Your task to perform on an android device: uninstall "Messages" Image 0: 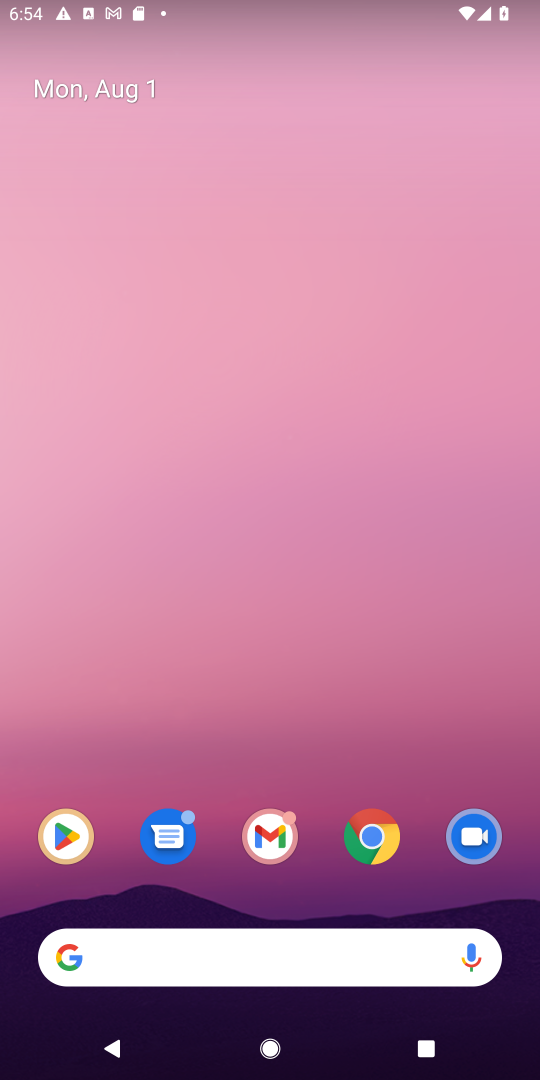
Step 0: press home button
Your task to perform on an android device: uninstall "Messages" Image 1: 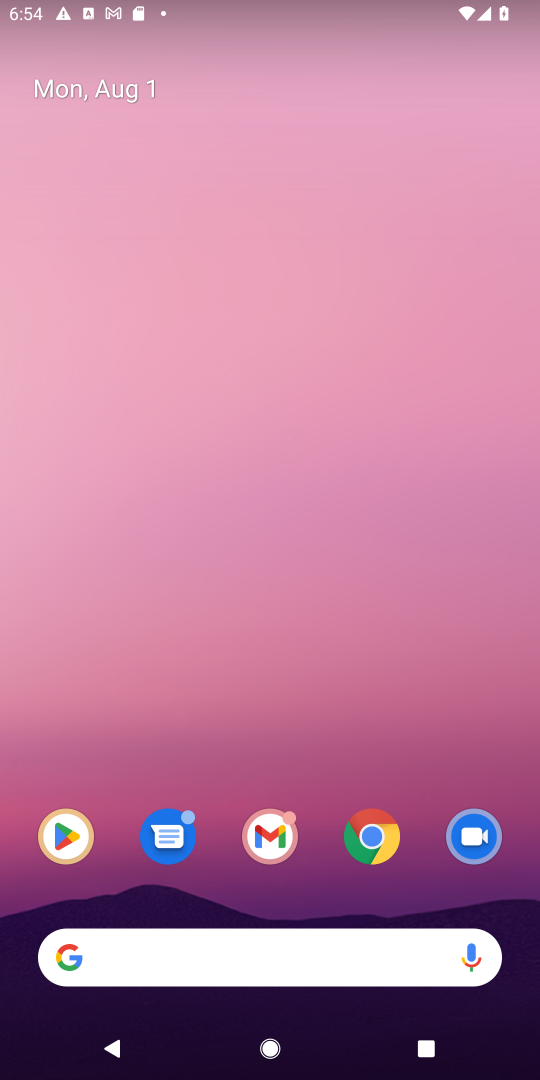
Step 1: click (62, 823)
Your task to perform on an android device: uninstall "Messages" Image 2: 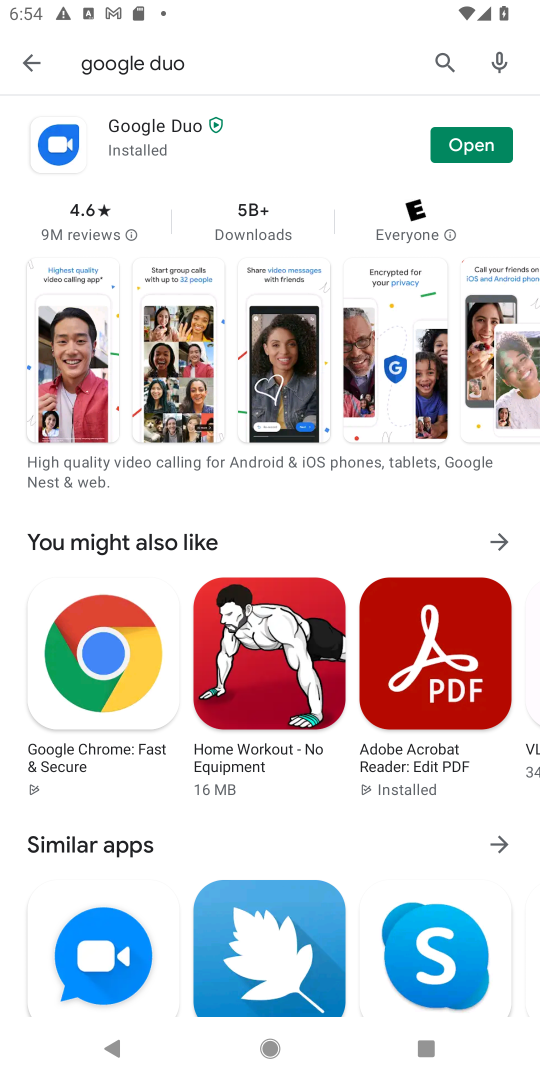
Step 2: click (446, 55)
Your task to perform on an android device: uninstall "Messages" Image 3: 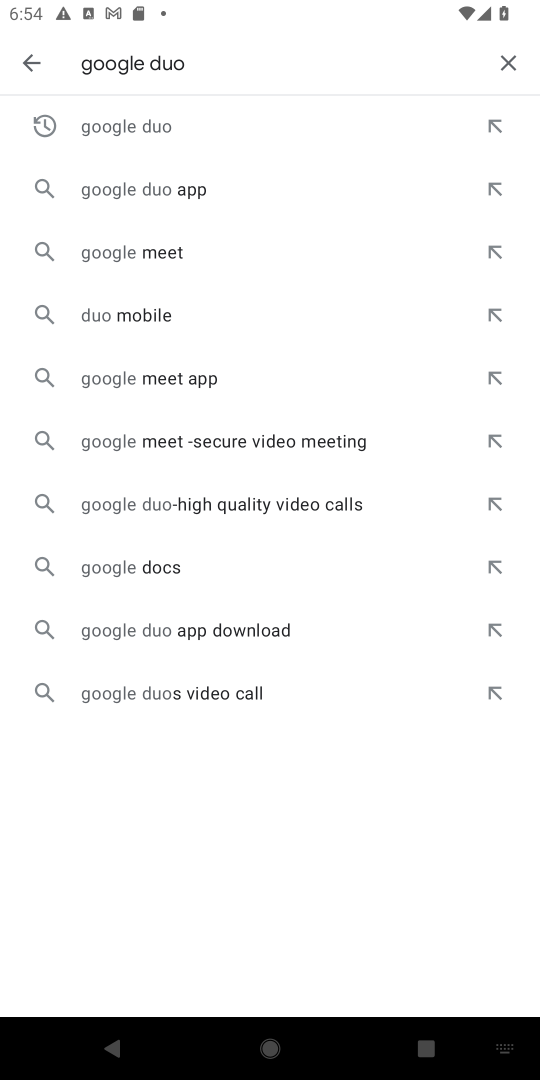
Step 3: click (504, 55)
Your task to perform on an android device: uninstall "Messages" Image 4: 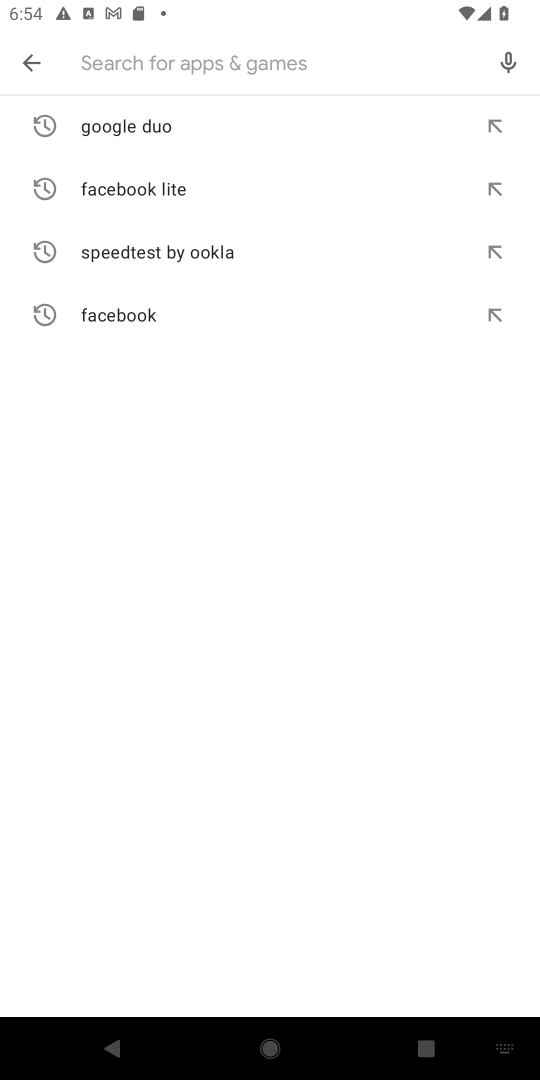
Step 4: type "Messages"
Your task to perform on an android device: uninstall "Messages" Image 5: 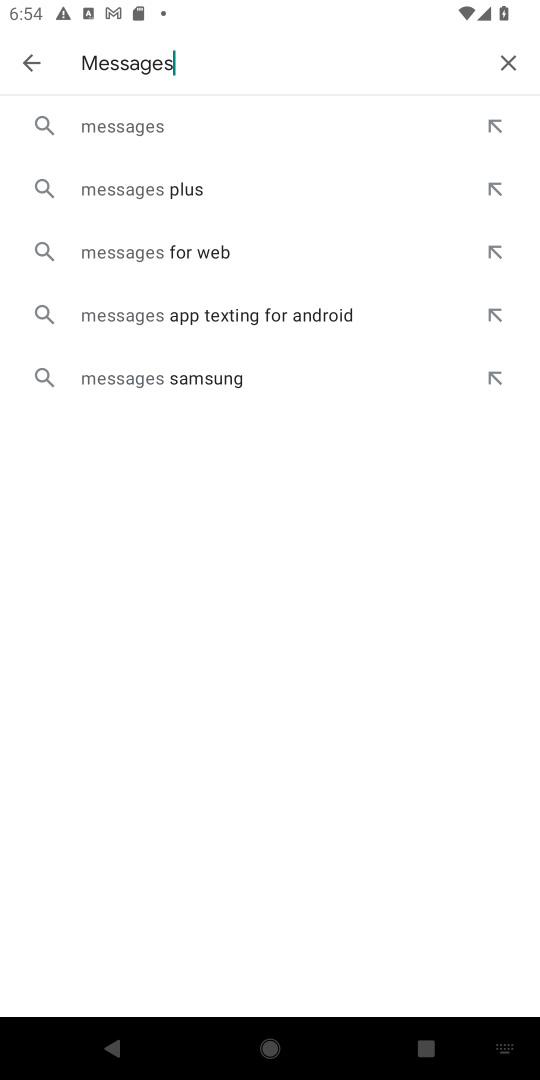
Step 5: click (155, 114)
Your task to perform on an android device: uninstall "Messages" Image 6: 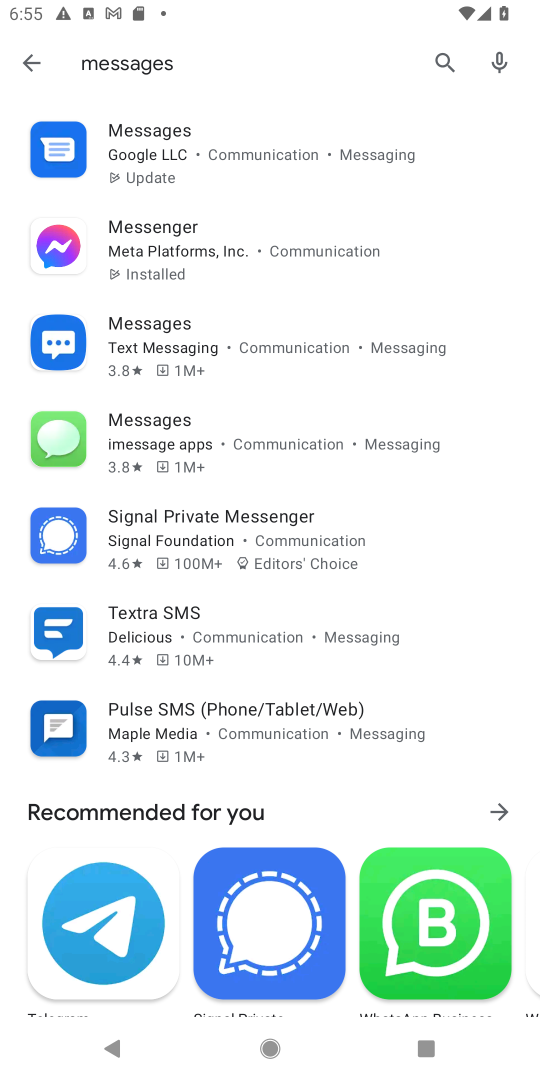
Step 6: click (216, 161)
Your task to perform on an android device: uninstall "Messages" Image 7: 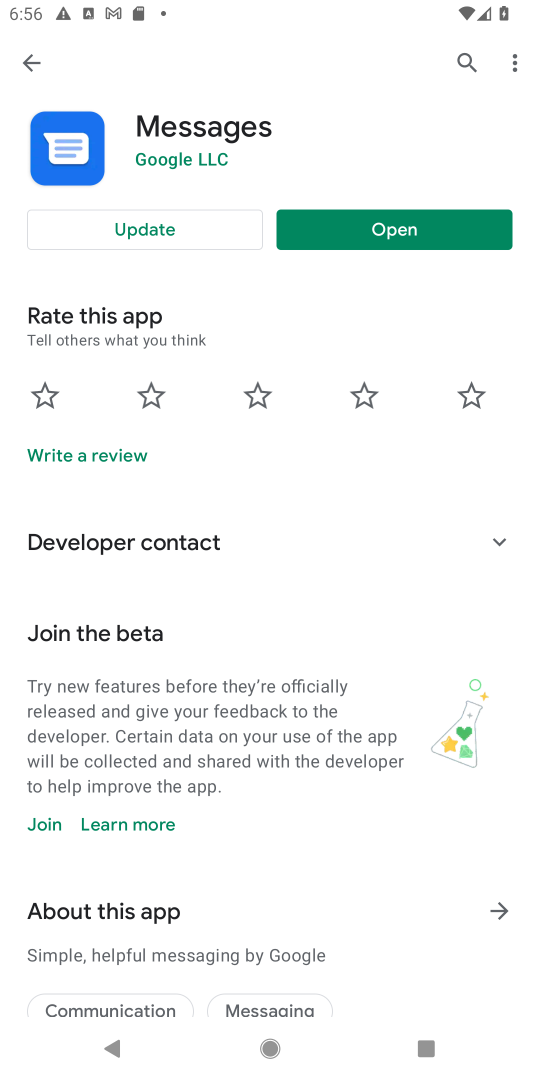
Step 7: task complete